Your task to perform on an android device: What's the weather? Image 0: 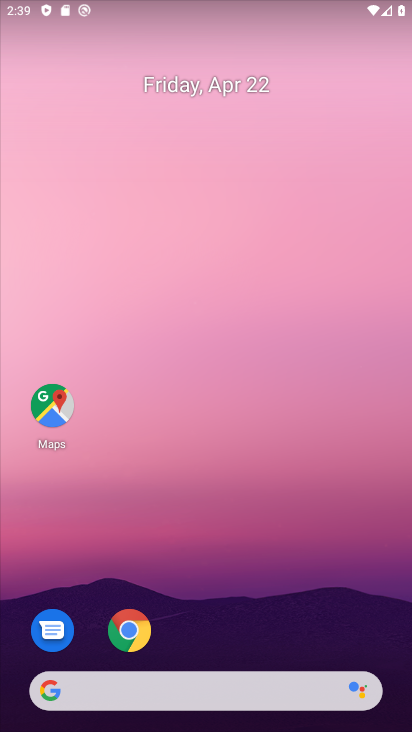
Step 0: drag from (257, 711) to (256, 206)
Your task to perform on an android device: What's the weather? Image 1: 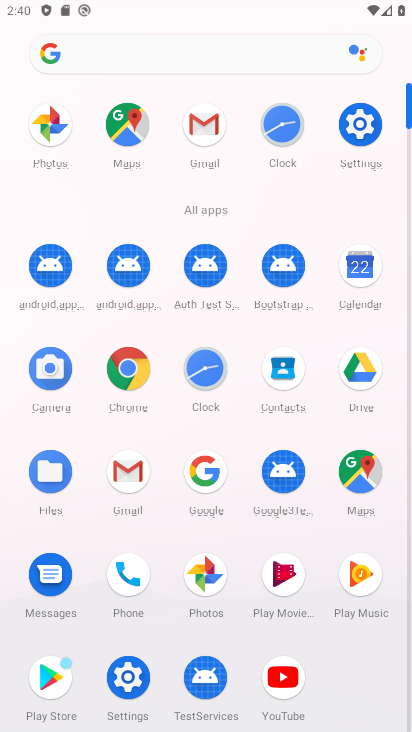
Step 1: drag from (224, 566) to (215, 135)
Your task to perform on an android device: What's the weather? Image 2: 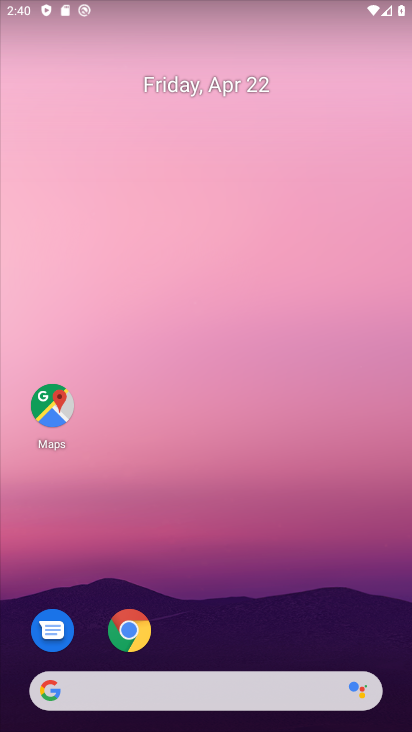
Step 2: press home button
Your task to perform on an android device: What's the weather? Image 3: 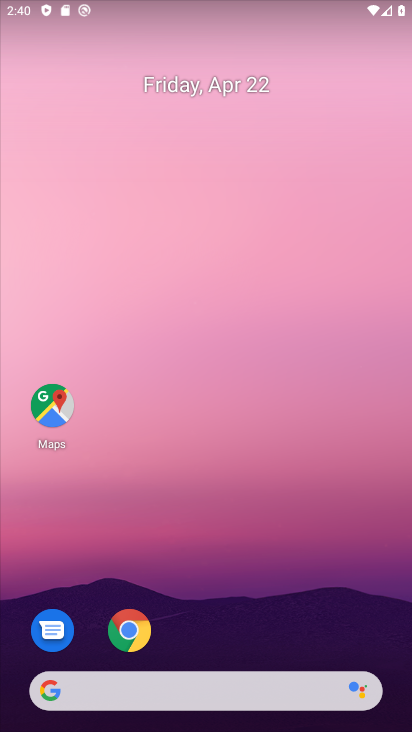
Step 3: drag from (235, 681) to (215, 106)
Your task to perform on an android device: What's the weather? Image 4: 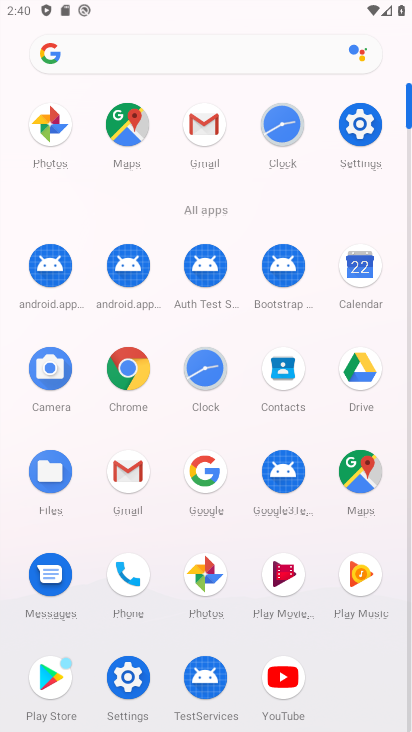
Step 4: drag from (137, 654) to (207, 45)
Your task to perform on an android device: What's the weather? Image 5: 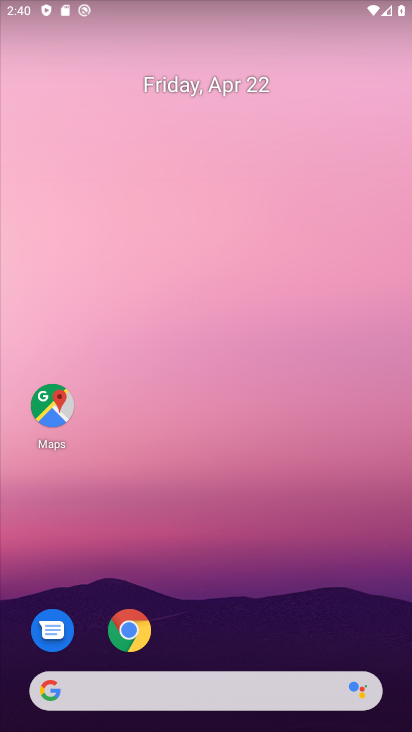
Step 5: click (319, 544)
Your task to perform on an android device: What's the weather? Image 6: 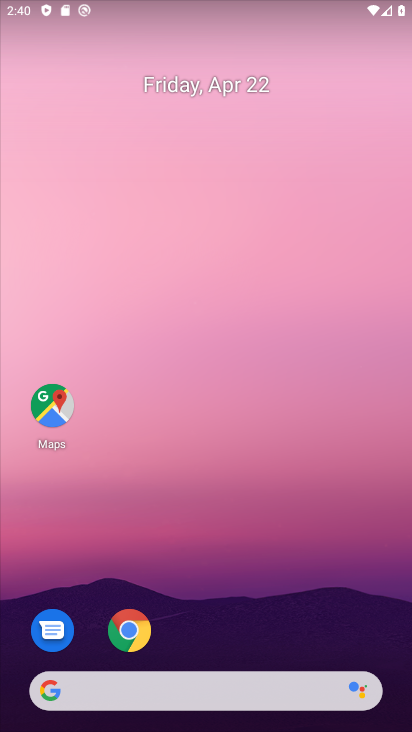
Step 6: drag from (237, 692) to (285, 92)
Your task to perform on an android device: What's the weather? Image 7: 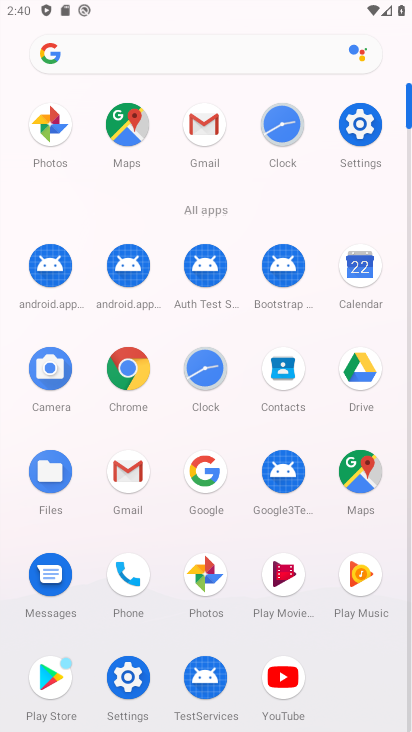
Step 7: type "weather"
Your task to perform on an android device: What's the weather? Image 8: 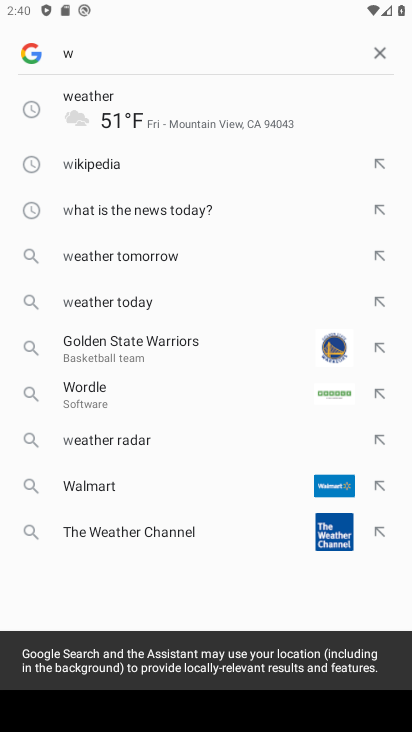
Step 8: click (84, 102)
Your task to perform on an android device: What's the weather? Image 9: 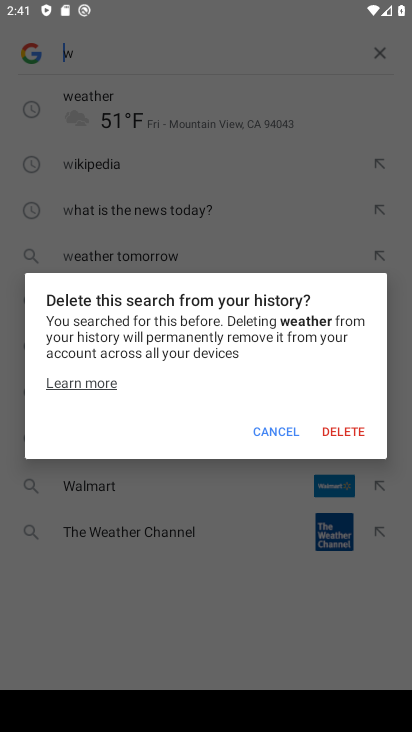
Step 9: click (274, 514)
Your task to perform on an android device: What's the weather? Image 10: 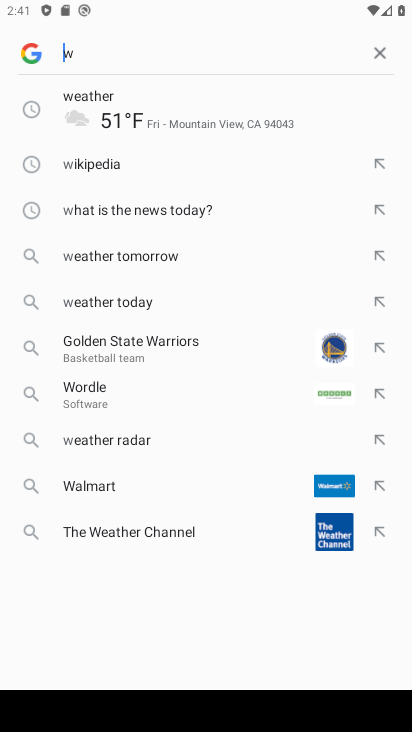
Step 10: task complete